Your task to perform on an android device: Add razer blade to the cart on walmart Image 0: 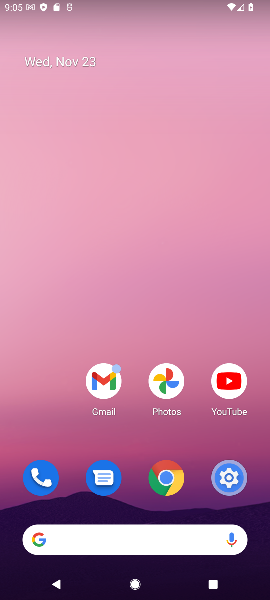
Step 0: click (165, 545)
Your task to perform on an android device: Add razer blade to the cart on walmart Image 1: 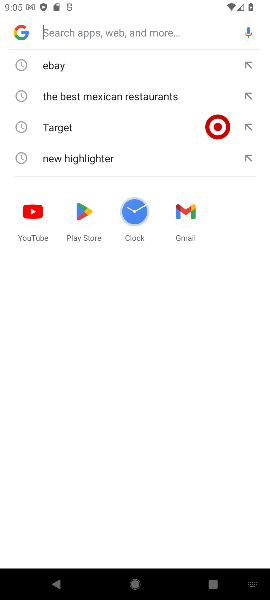
Step 1: type "walmart"
Your task to perform on an android device: Add razer blade to the cart on walmart Image 2: 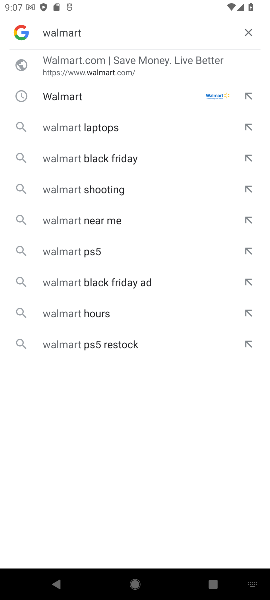
Step 2: click (117, 77)
Your task to perform on an android device: Add razer blade to the cart on walmart Image 3: 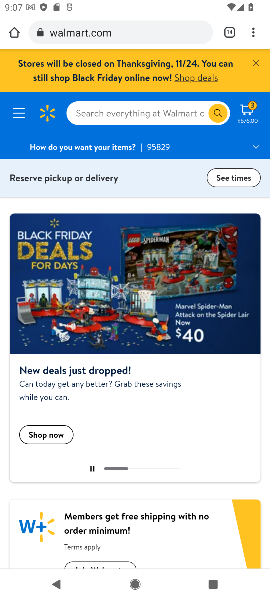
Step 3: click (160, 114)
Your task to perform on an android device: Add razer blade to the cart on walmart Image 4: 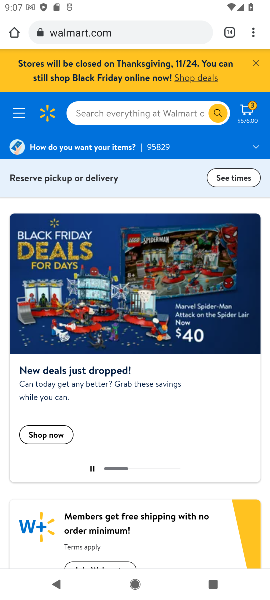
Step 4: click (160, 114)
Your task to perform on an android device: Add razer blade to the cart on walmart Image 5: 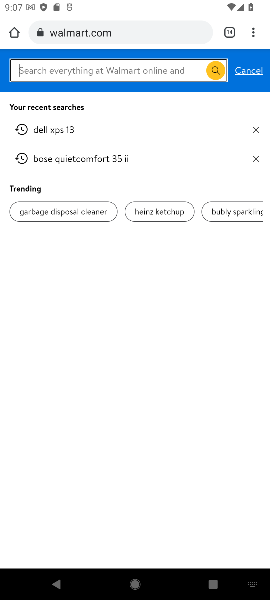
Step 5: type "razer blade"
Your task to perform on an android device: Add razer blade to the cart on walmart Image 6: 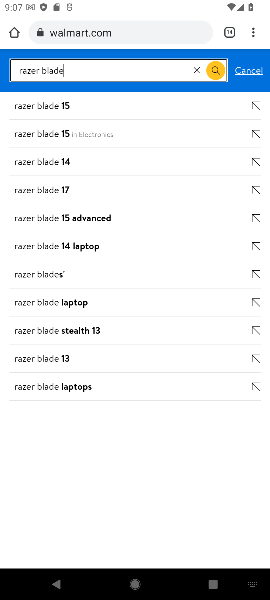
Step 6: click (55, 113)
Your task to perform on an android device: Add razer blade to the cart on walmart Image 7: 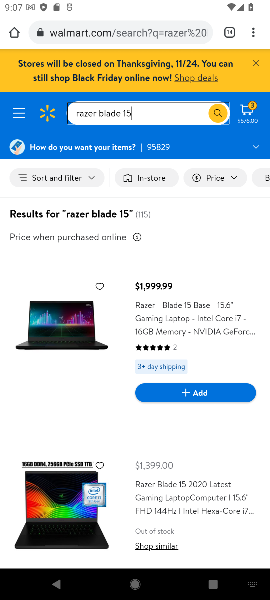
Step 7: click (199, 406)
Your task to perform on an android device: Add razer blade to the cart on walmart Image 8: 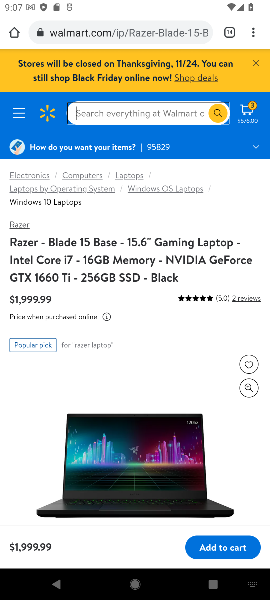
Step 8: click (244, 553)
Your task to perform on an android device: Add razer blade to the cart on walmart Image 9: 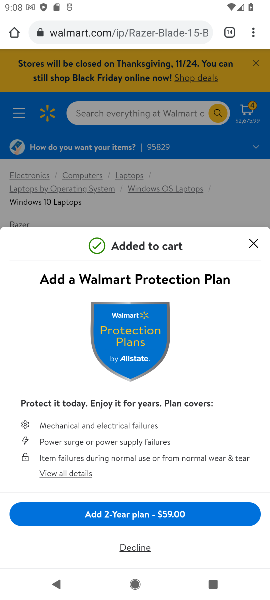
Step 9: click (247, 251)
Your task to perform on an android device: Add razer blade to the cart on walmart Image 10: 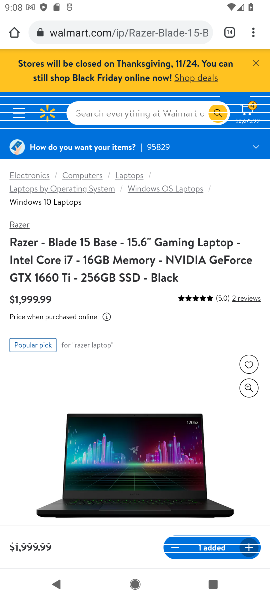
Step 10: task complete